Your task to perform on an android device: What is the news today? Image 0: 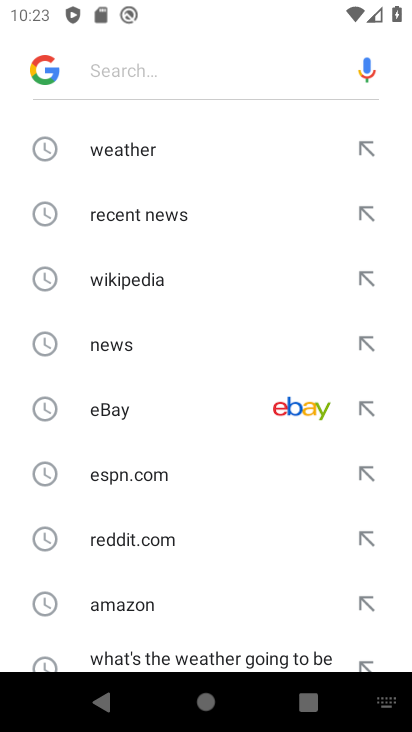
Step 0: click (143, 224)
Your task to perform on an android device: What is the news today? Image 1: 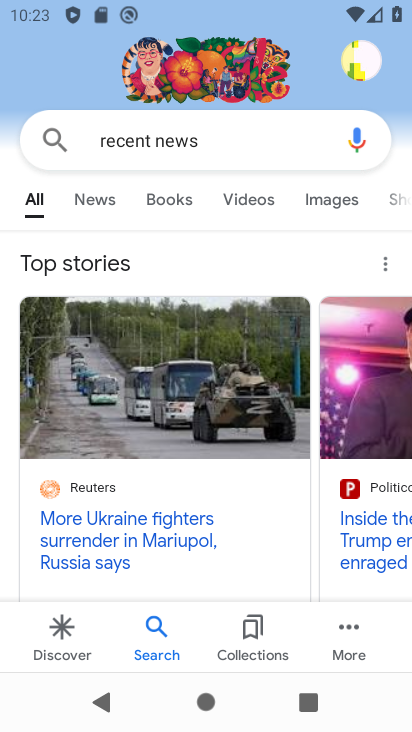
Step 1: task complete